Your task to perform on an android device: open sync settings in chrome Image 0: 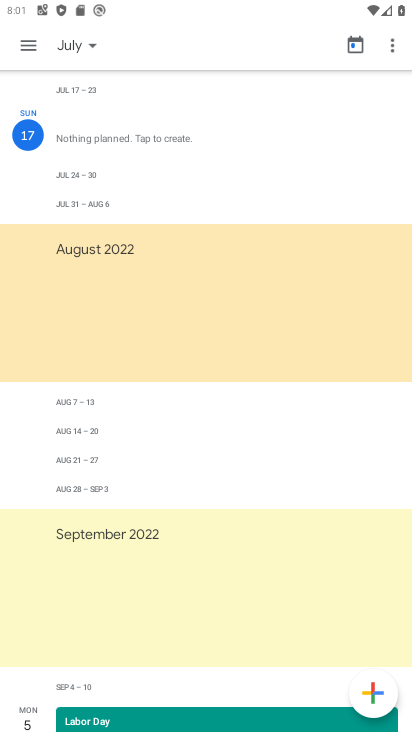
Step 0: press home button
Your task to perform on an android device: open sync settings in chrome Image 1: 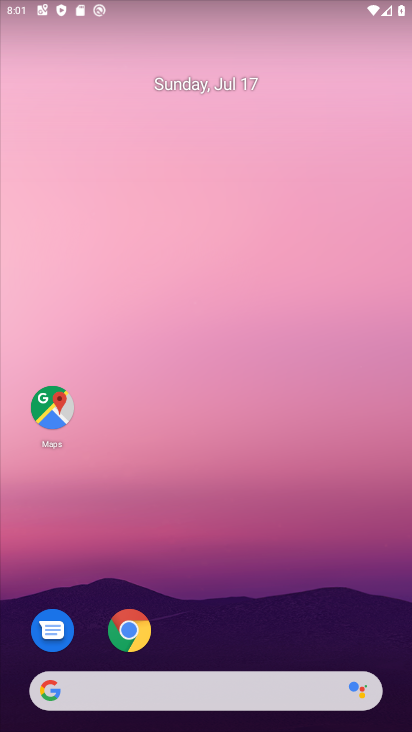
Step 1: click (125, 629)
Your task to perform on an android device: open sync settings in chrome Image 2: 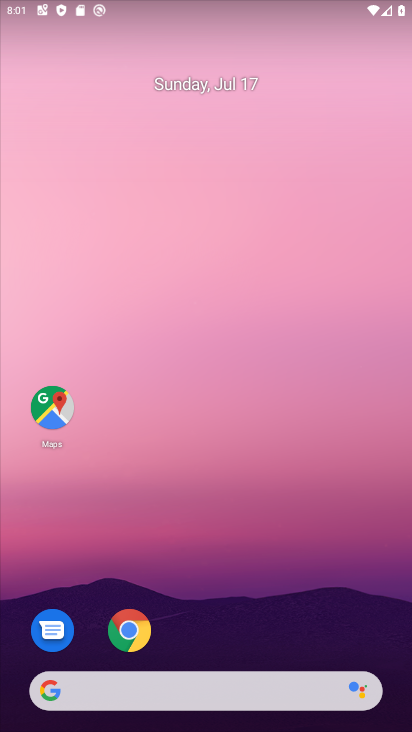
Step 2: click (125, 629)
Your task to perform on an android device: open sync settings in chrome Image 3: 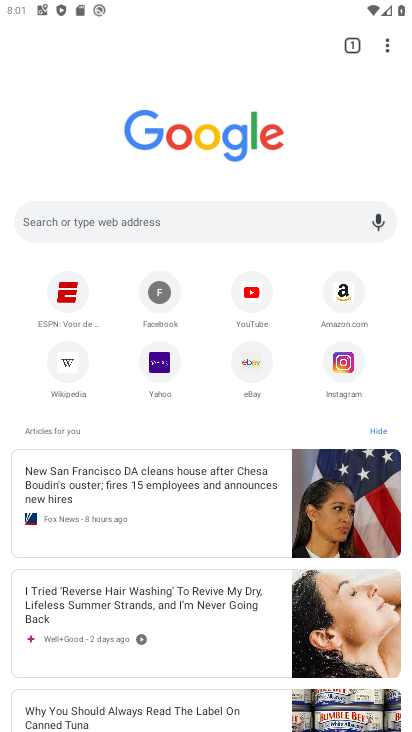
Step 3: click (380, 43)
Your task to perform on an android device: open sync settings in chrome Image 4: 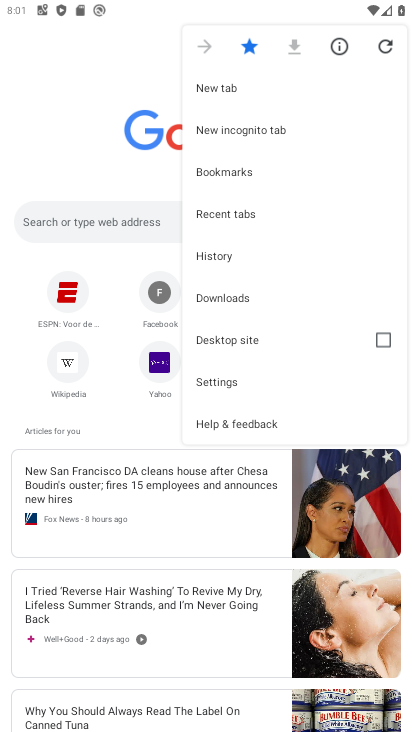
Step 4: click (233, 386)
Your task to perform on an android device: open sync settings in chrome Image 5: 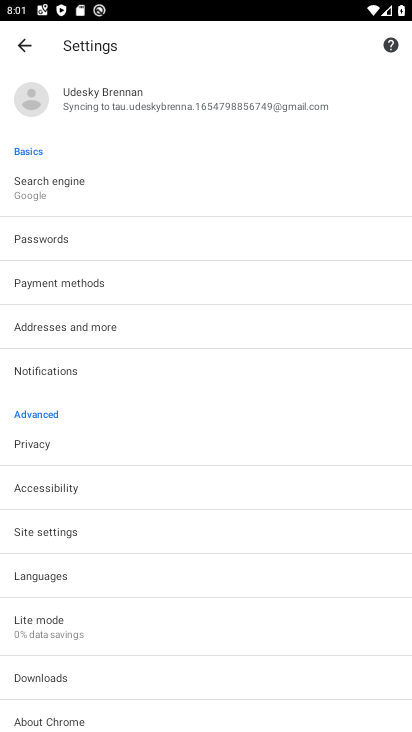
Step 5: click (127, 89)
Your task to perform on an android device: open sync settings in chrome Image 6: 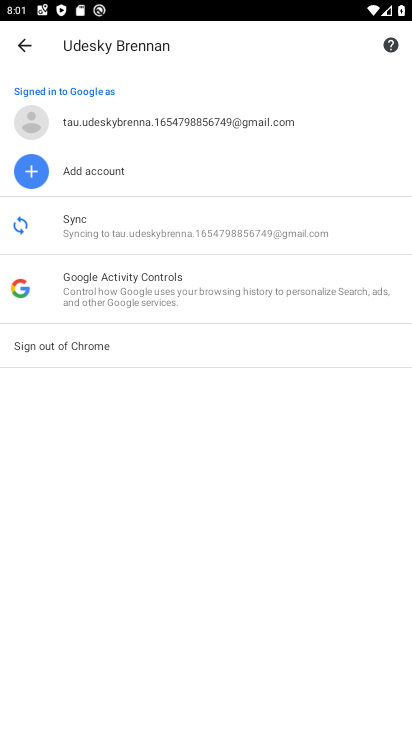
Step 6: task complete